Your task to perform on an android device: uninstall "Indeed Job Search" Image 0: 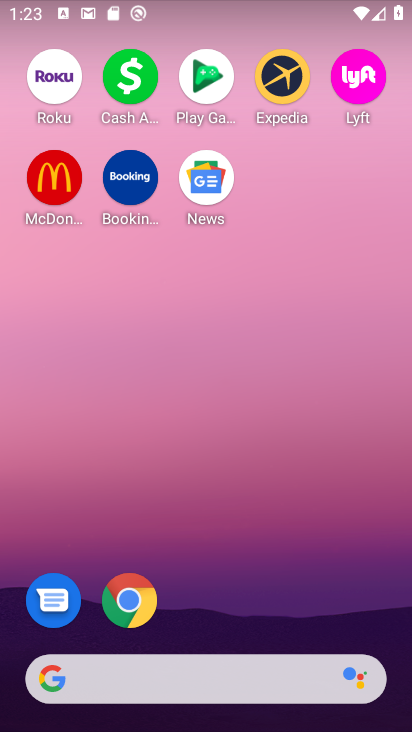
Step 0: drag from (284, 602) to (254, 231)
Your task to perform on an android device: uninstall "Indeed Job Search" Image 1: 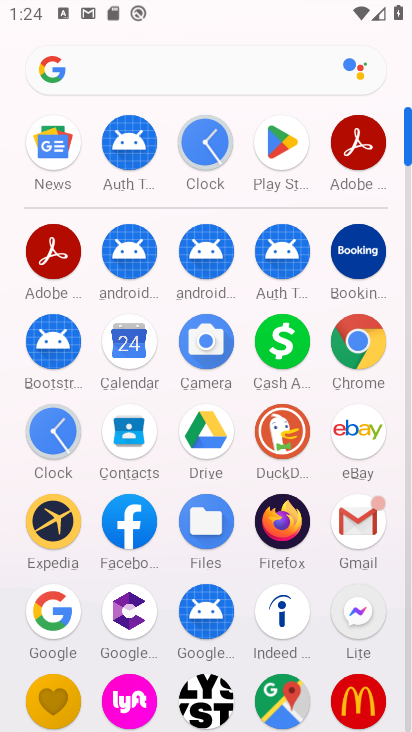
Step 1: click (293, 143)
Your task to perform on an android device: uninstall "Indeed Job Search" Image 2: 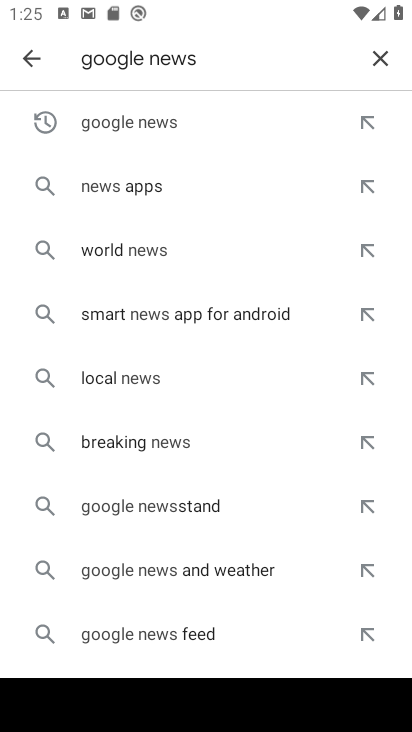
Step 2: click (400, 57)
Your task to perform on an android device: uninstall "Indeed Job Search" Image 3: 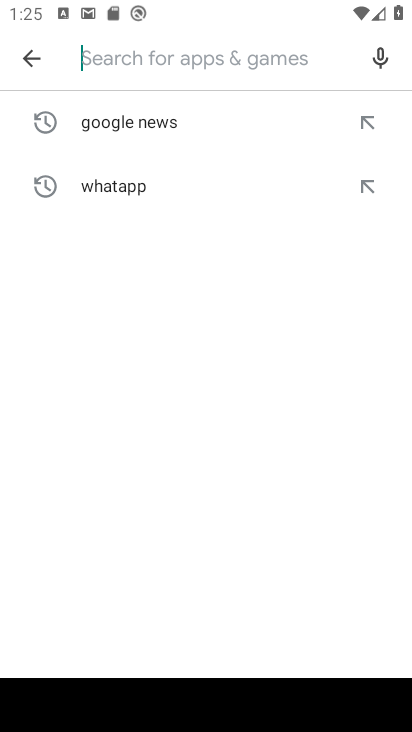
Step 3: type "indeed"
Your task to perform on an android device: uninstall "Indeed Job Search" Image 4: 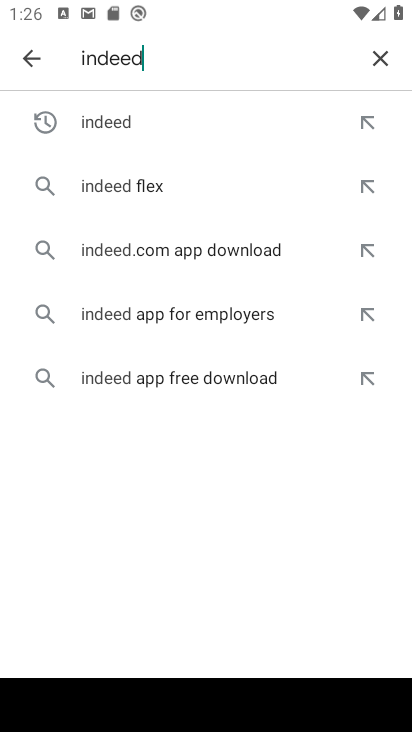
Step 4: click (244, 115)
Your task to perform on an android device: uninstall "Indeed Job Search" Image 5: 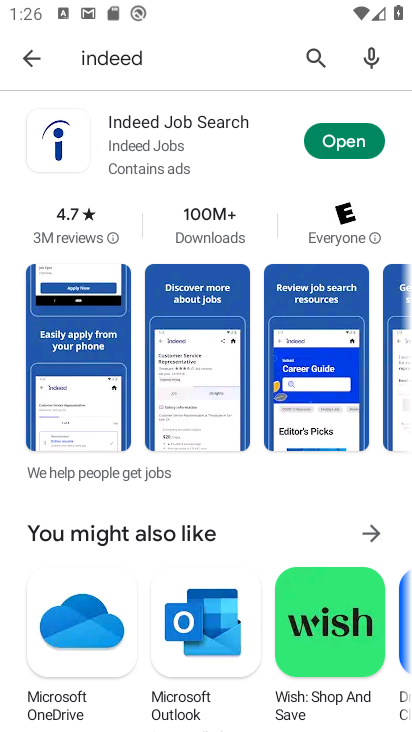
Step 5: click (353, 122)
Your task to perform on an android device: uninstall "Indeed Job Search" Image 6: 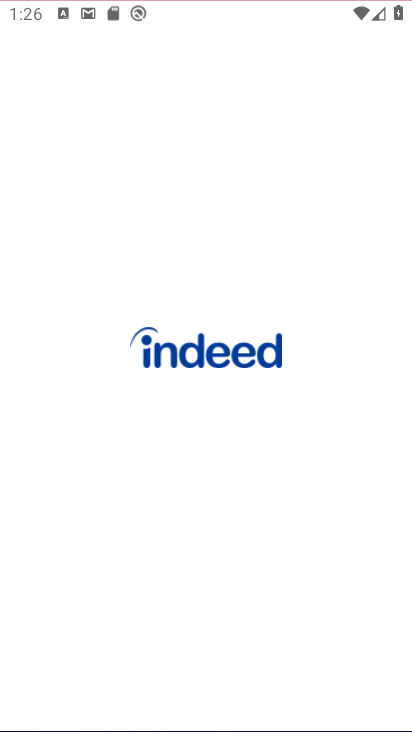
Step 6: task complete